Your task to perform on an android device: Open Chrome and go to settings Image 0: 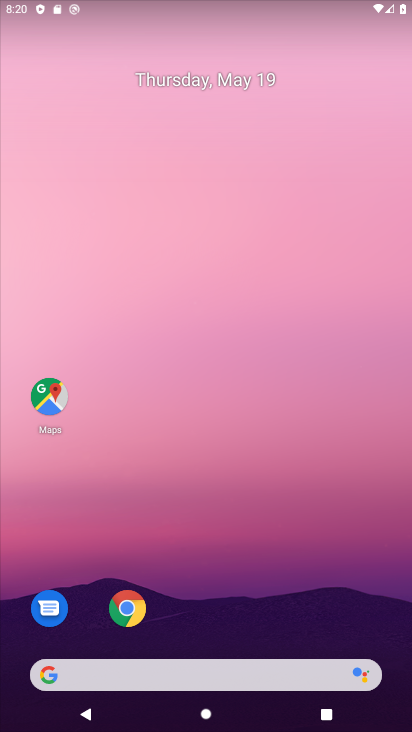
Step 0: drag from (264, 546) to (185, 274)
Your task to perform on an android device: Open Chrome and go to settings Image 1: 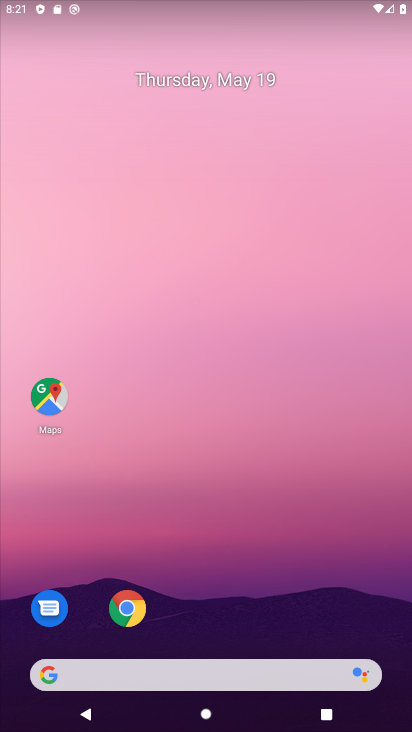
Step 1: drag from (310, 566) to (248, 346)
Your task to perform on an android device: Open Chrome and go to settings Image 2: 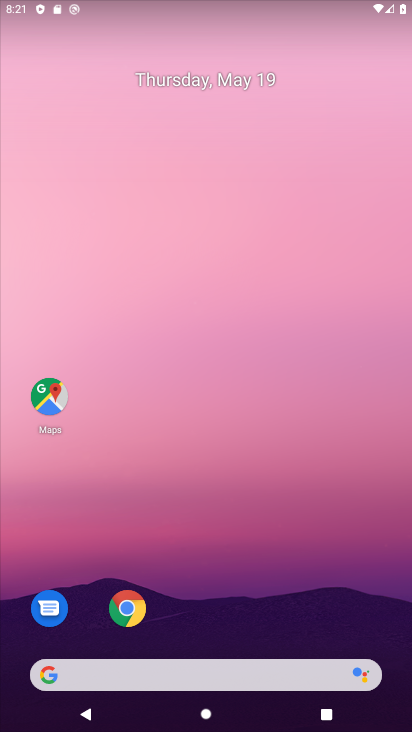
Step 2: drag from (243, 467) to (209, 213)
Your task to perform on an android device: Open Chrome and go to settings Image 3: 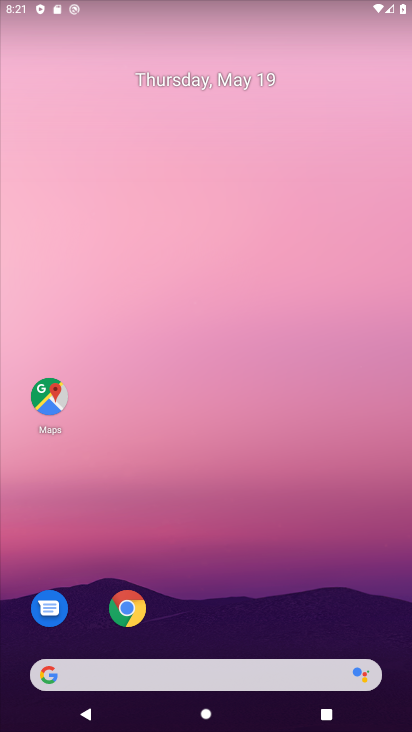
Step 3: drag from (258, 520) to (187, 92)
Your task to perform on an android device: Open Chrome and go to settings Image 4: 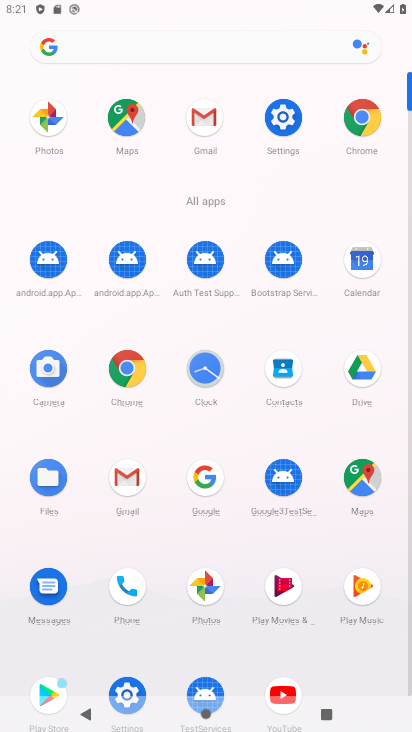
Step 4: click (364, 120)
Your task to perform on an android device: Open Chrome and go to settings Image 5: 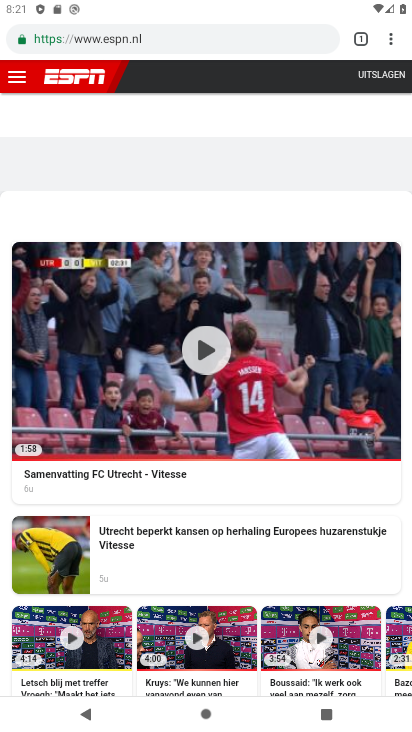
Step 5: click (390, 35)
Your task to perform on an android device: Open Chrome and go to settings Image 6: 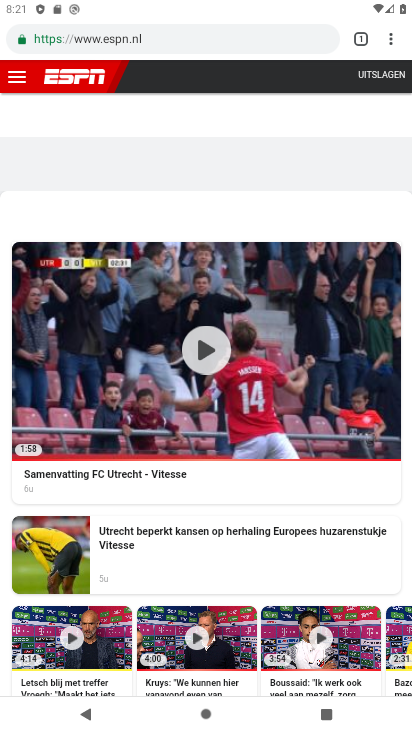
Step 6: drag from (390, 30) to (254, 472)
Your task to perform on an android device: Open Chrome and go to settings Image 7: 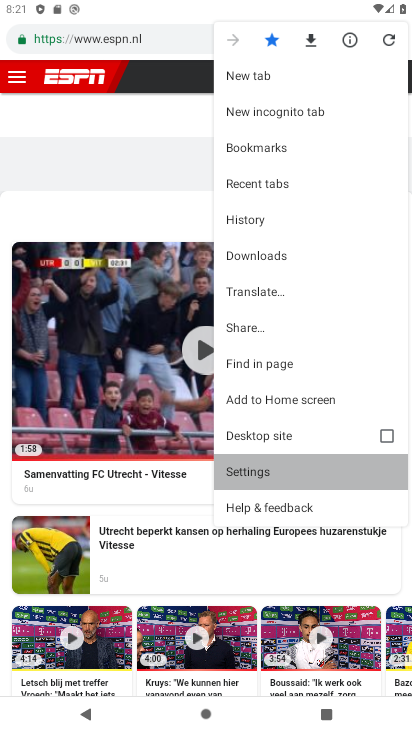
Step 7: click (252, 471)
Your task to perform on an android device: Open Chrome and go to settings Image 8: 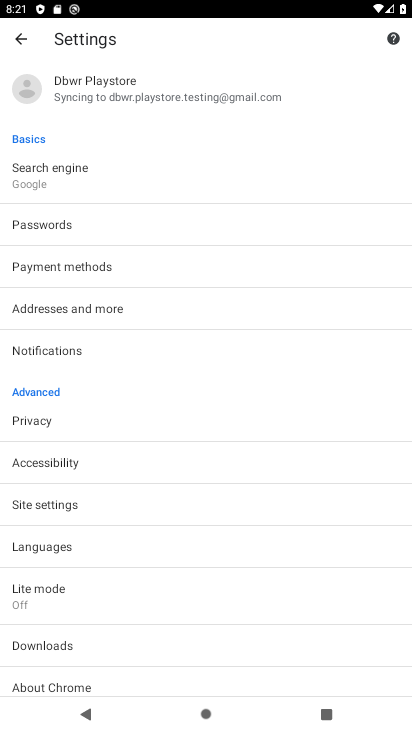
Step 8: task complete